Your task to perform on an android device: change the clock style Image 0: 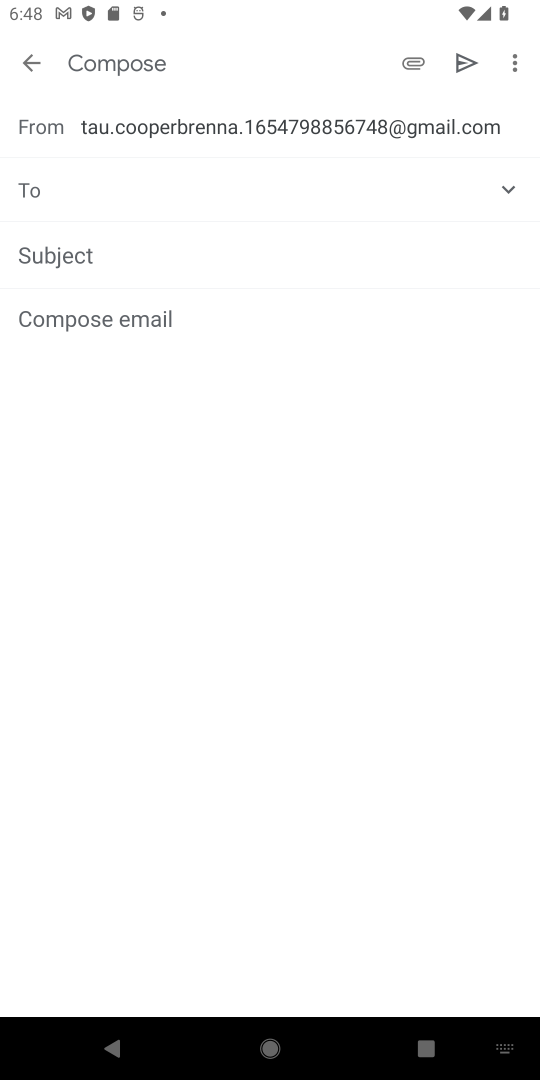
Step 0: press home button
Your task to perform on an android device: change the clock style Image 1: 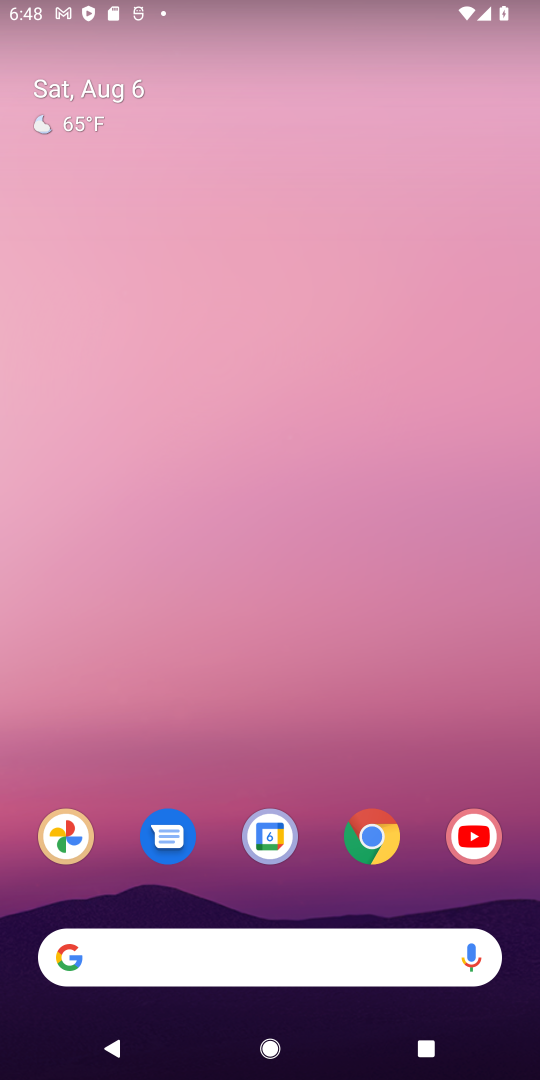
Step 1: drag from (452, 910) to (212, 38)
Your task to perform on an android device: change the clock style Image 2: 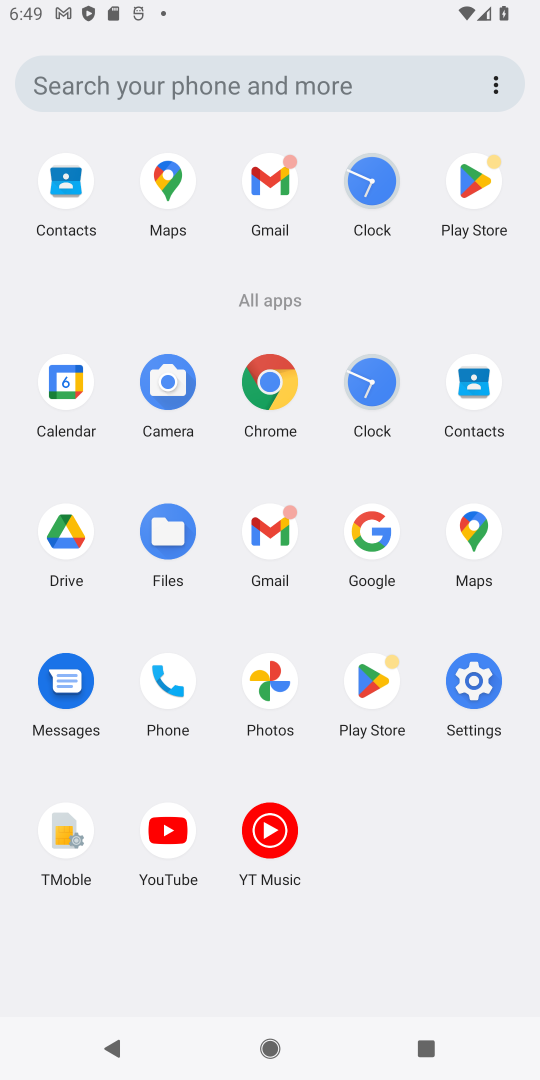
Step 2: click (367, 377)
Your task to perform on an android device: change the clock style Image 3: 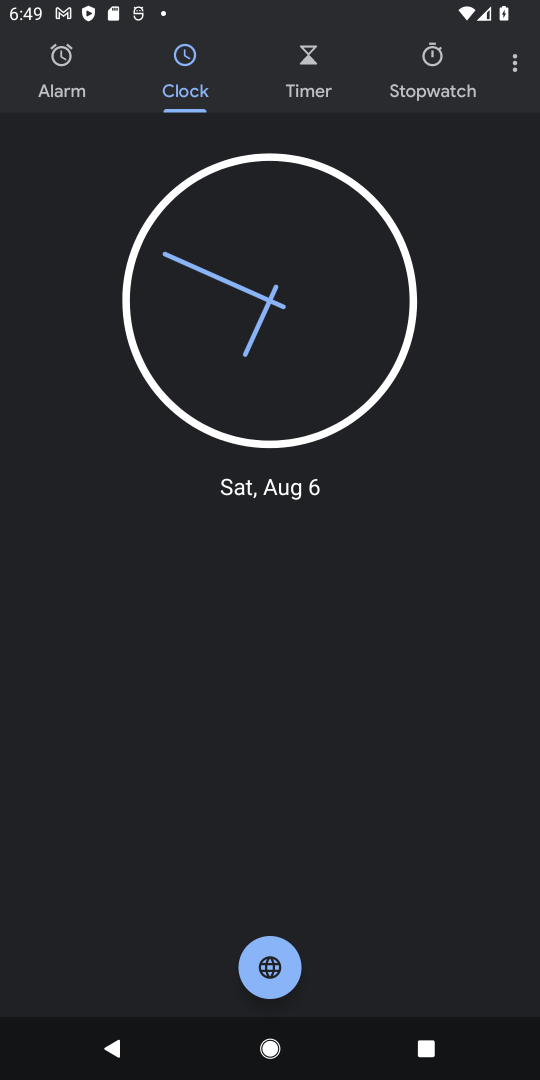
Step 3: click (510, 57)
Your task to perform on an android device: change the clock style Image 4: 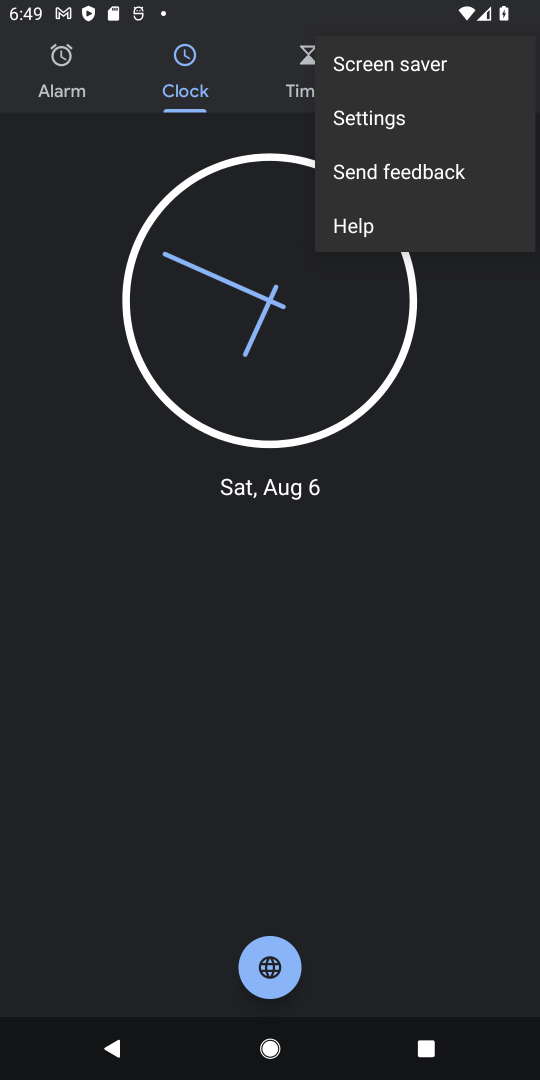
Step 4: click (398, 103)
Your task to perform on an android device: change the clock style Image 5: 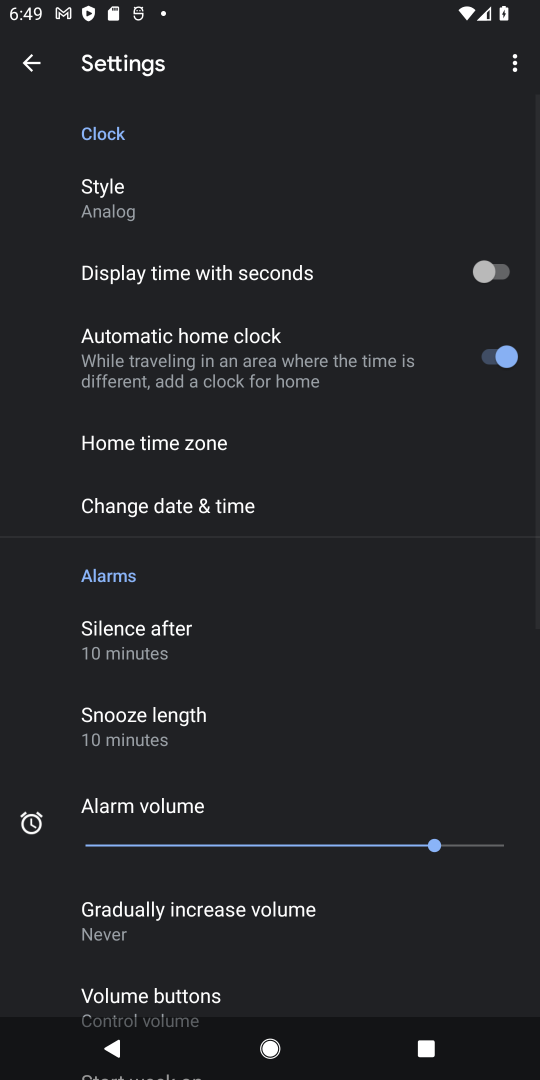
Step 5: click (122, 202)
Your task to perform on an android device: change the clock style Image 6: 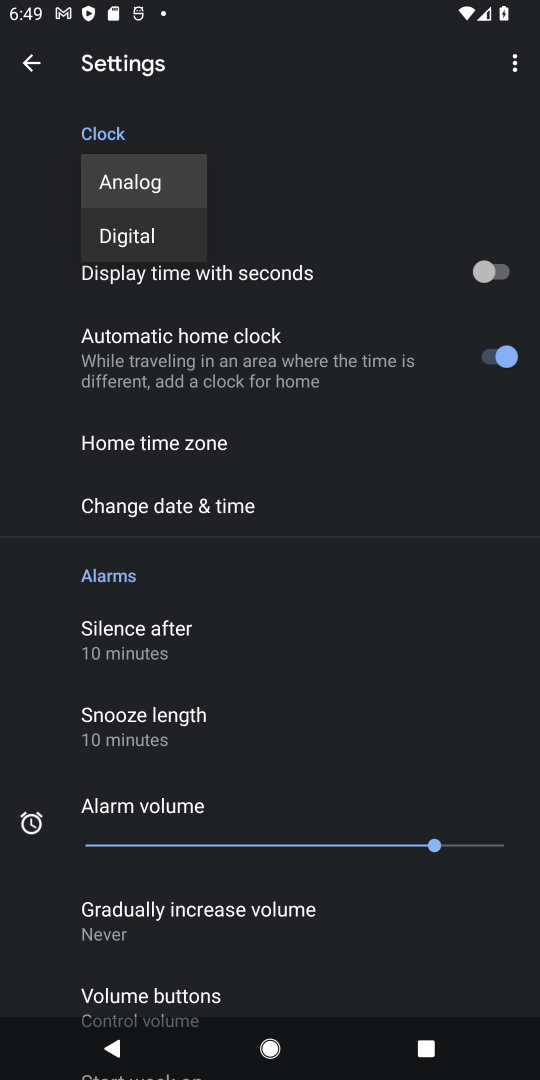
Step 6: click (164, 253)
Your task to perform on an android device: change the clock style Image 7: 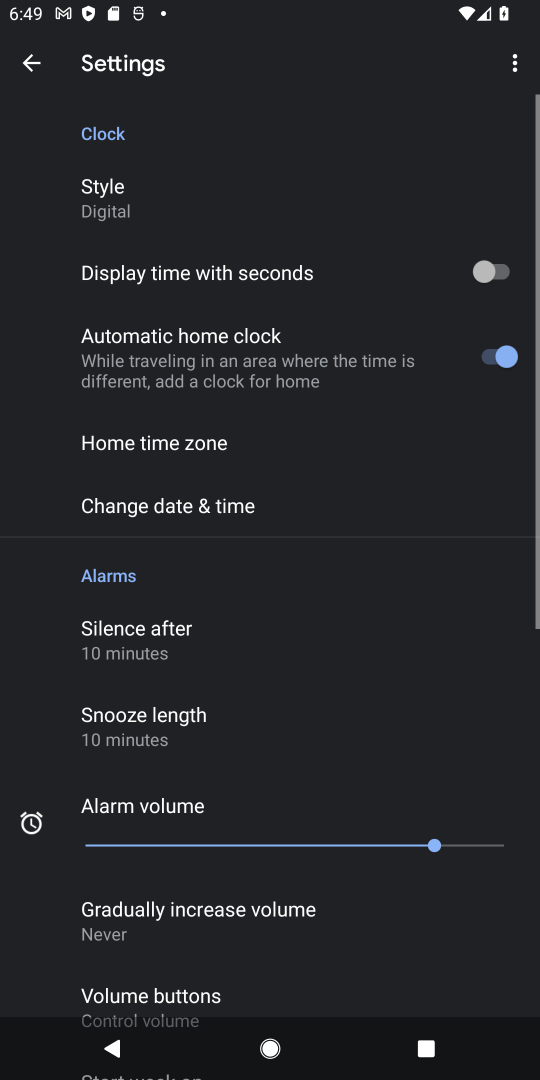
Step 7: task complete